Your task to perform on an android device: Do I have any events tomorrow? Image 0: 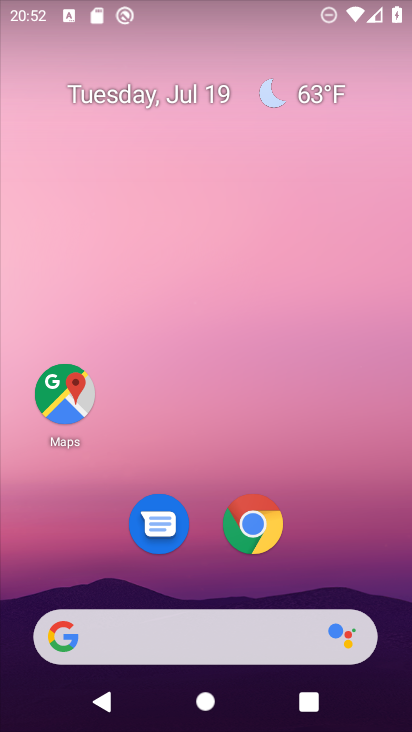
Step 0: drag from (317, 508) to (310, 40)
Your task to perform on an android device: Do I have any events tomorrow? Image 1: 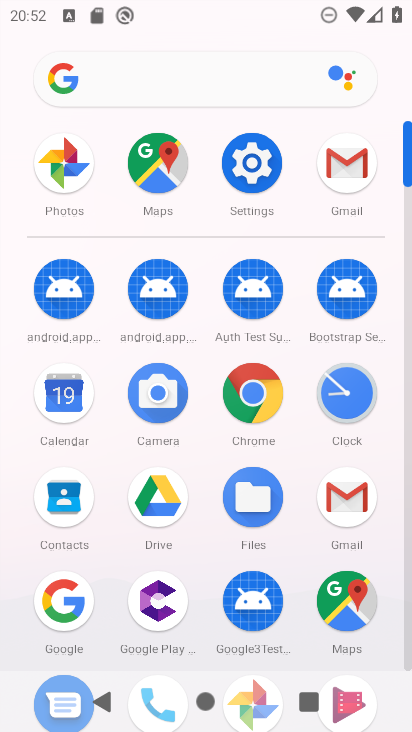
Step 1: click (64, 383)
Your task to perform on an android device: Do I have any events tomorrow? Image 2: 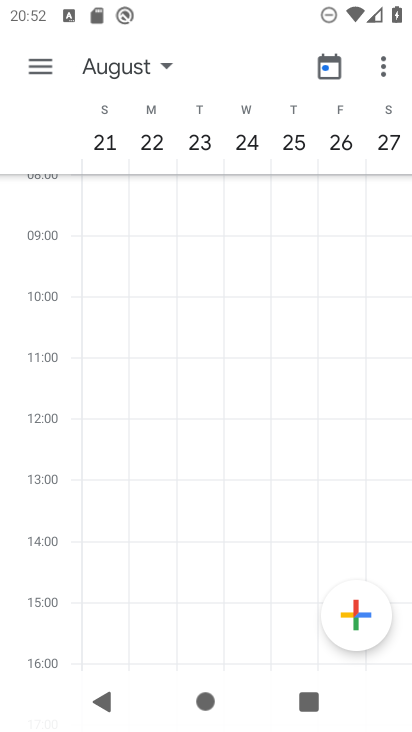
Step 2: task complete